Your task to perform on an android device: What's on my calendar tomorrow? Image 0: 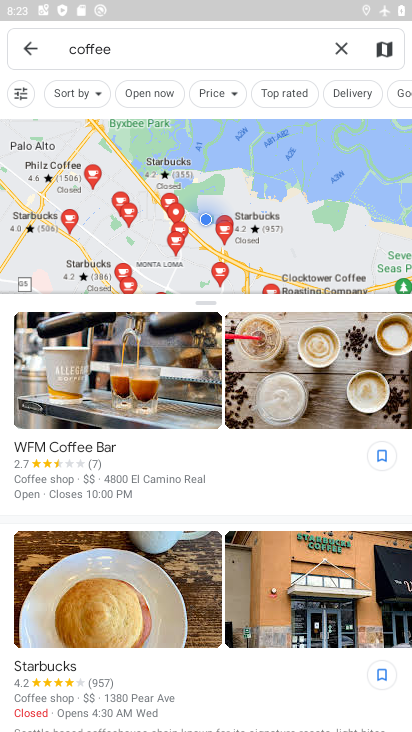
Step 0: press home button
Your task to perform on an android device: What's on my calendar tomorrow? Image 1: 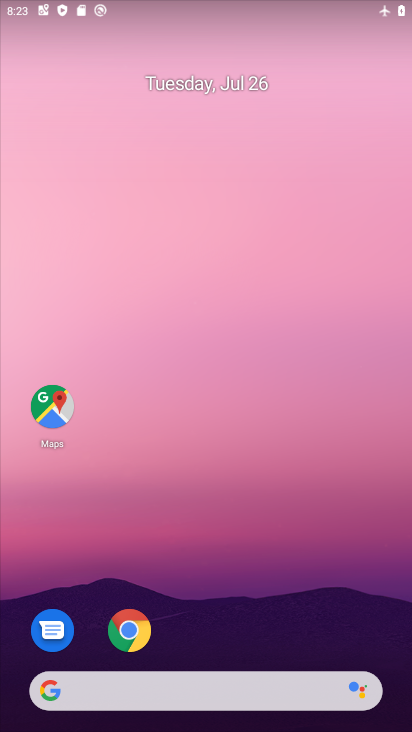
Step 1: drag from (261, 625) to (213, 0)
Your task to perform on an android device: What's on my calendar tomorrow? Image 2: 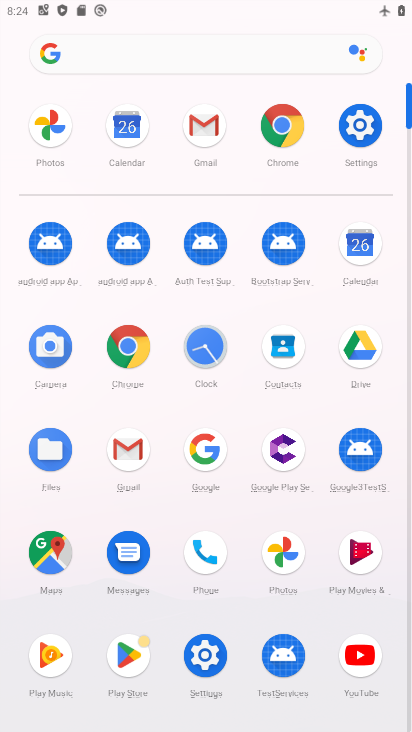
Step 2: click (356, 257)
Your task to perform on an android device: What's on my calendar tomorrow? Image 3: 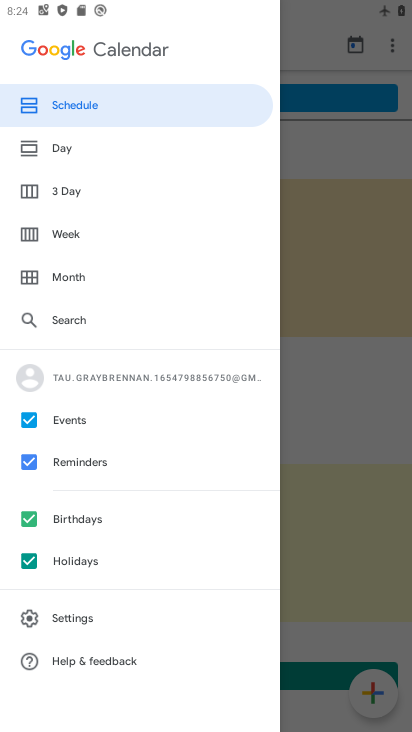
Step 3: click (370, 370)
Your task to perform on an android device: What's on my calendar tomorrow? Image 4: 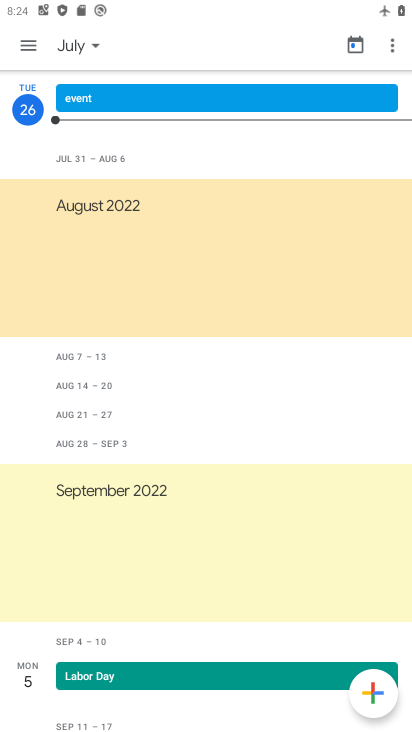
Step 4: task complete